Your task to perform on an android device: toggle sleep mode Image 0: 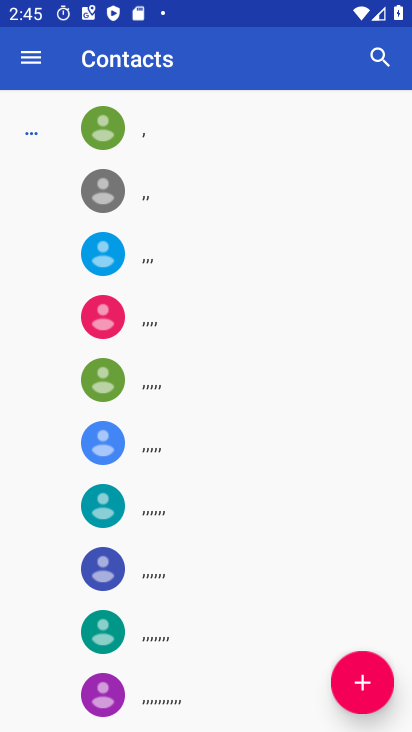
Step 0: press home button
Your task to perform on an android device: toggle sleep mode Image 1: 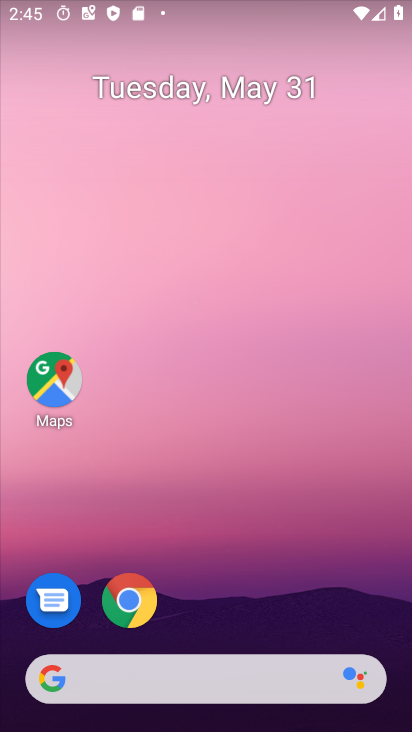
Step 1: drag from (216, 632) to (216, 42)
Your task to perform on an android device: toggle sleep mode Image 2: 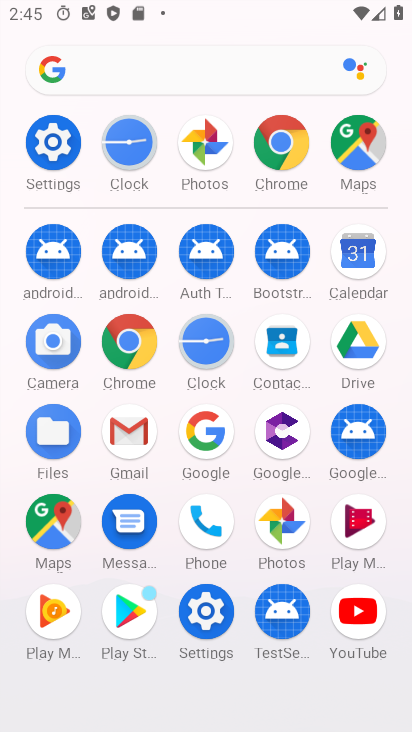
Step 2: click (51, 136)
Your task to perform on an android device: toggle sleep mode Image 3: 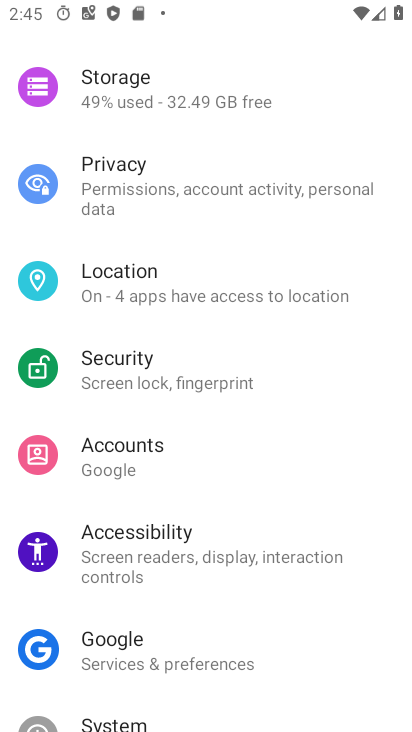
Step 3: drag from (169, 133) to (186, 662)
Your task to perform on an android device: toggle sleep mode Image 4: 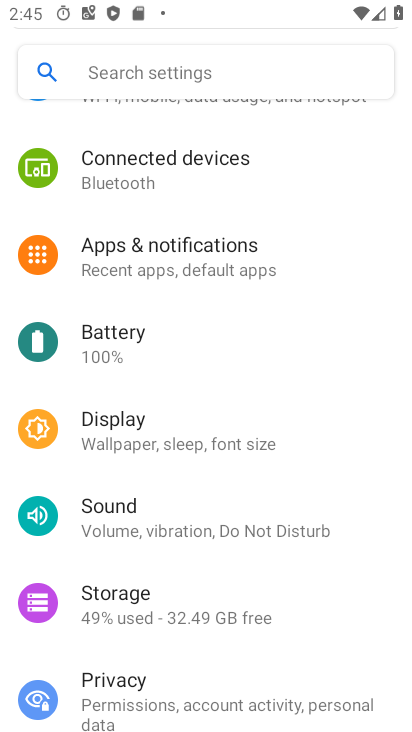
Step 4: click (158, 426)
Your task to perform on an android device: toggle sleep mode Image 5: 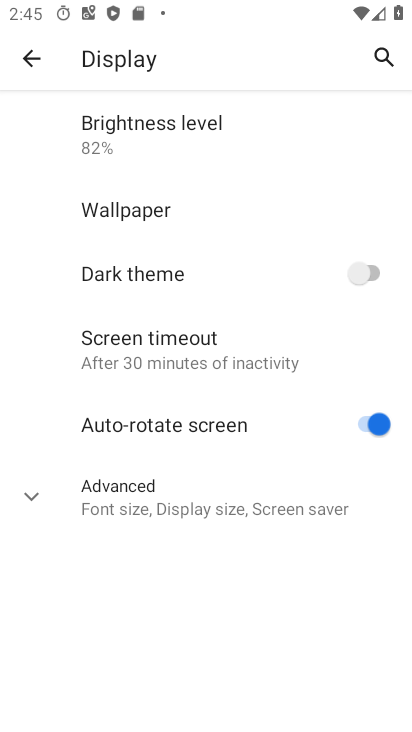
Step 5: click (38, 494)
Your task to perform on an android device: toggle sleep mode Image 6: 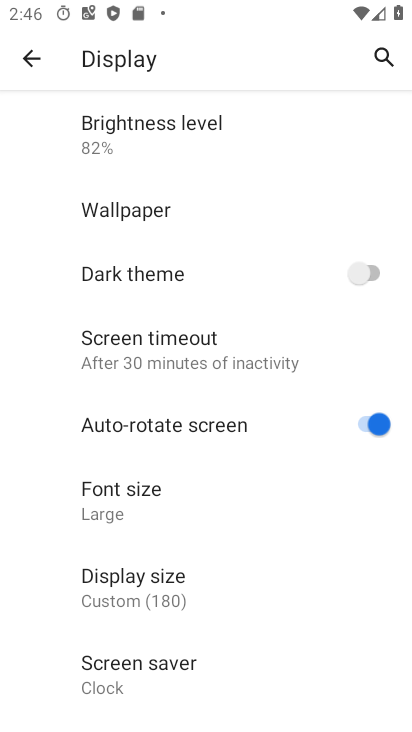
Step 6: task complete